Your task to perform on an android device: set default search engine in the chrome app Image 0: 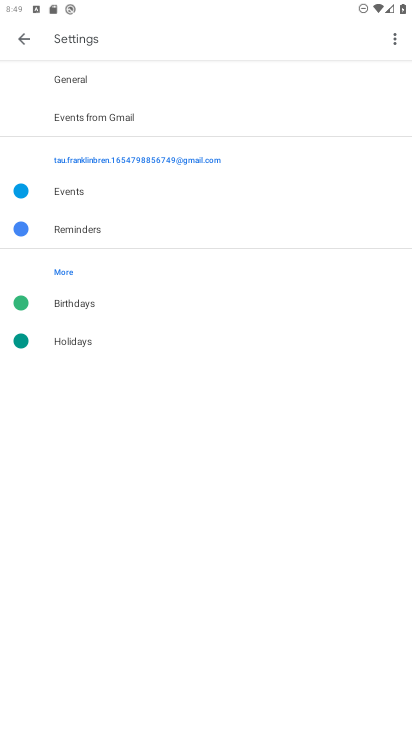
Step 0: press home button
Your task to perform on an android device: set default search engine in the chrome app Image 1: 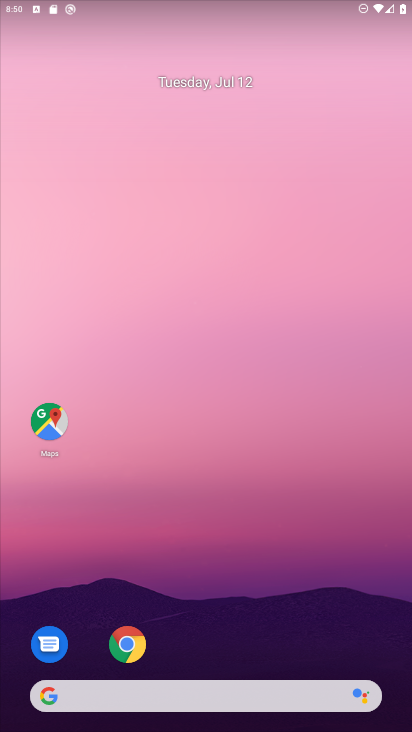
Step 1: click (128, 642)
Your task to perform on an android device: set default search engine in the chrome app Image 2: 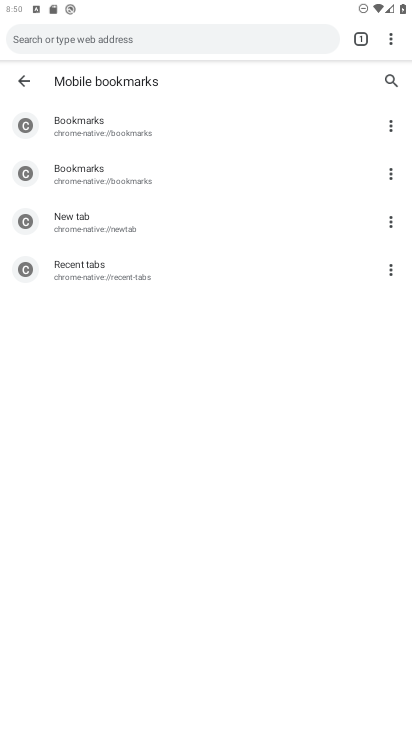
Step 2: press back button
Your task to perform on an android device: set default search engine in the chrome app Image 3: 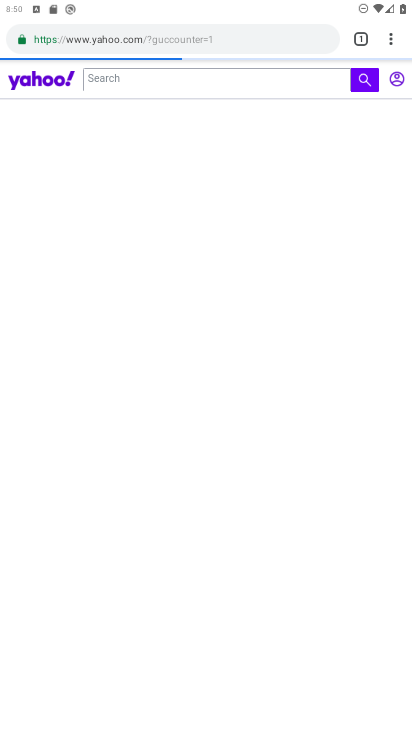
Step 3: click (393, 40)
Your task to perform on an android device: set default search engine in the chrome app Image 4: 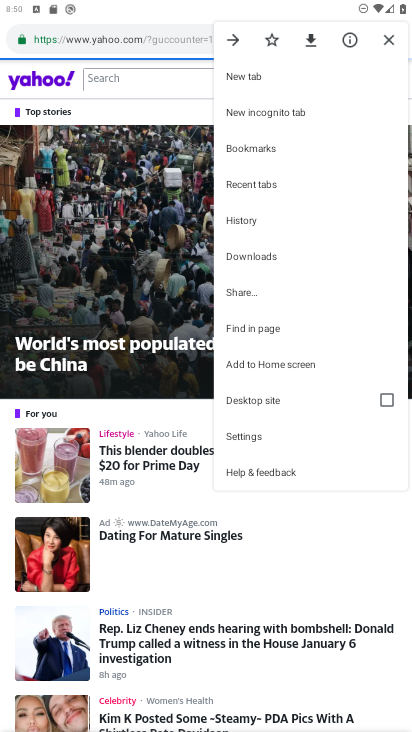
Step 4: click (250, 437)
Your task to perform on an android device: set default search engine in the chrome app Image 5: 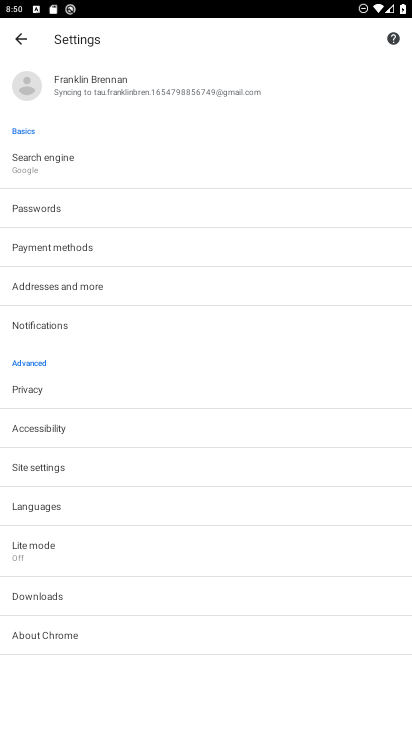
Step 5: click (34, 151)
Your task to perform on an android device: set default search engine in the chrome app Image 6: 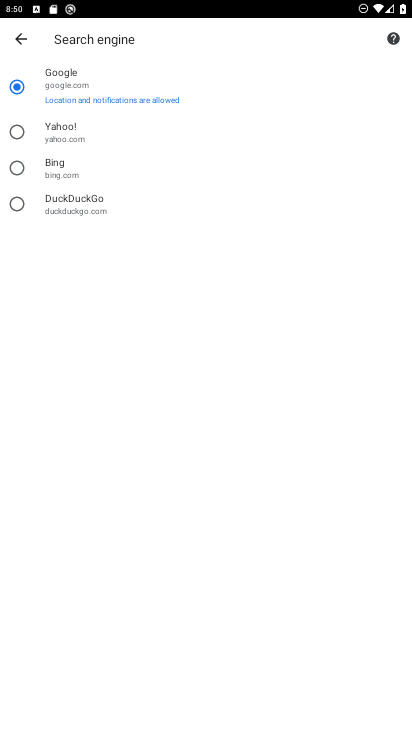
Step 6: click (16, 131)
Your task to perform on an android device: set default search engine in the chrome app Image 7: 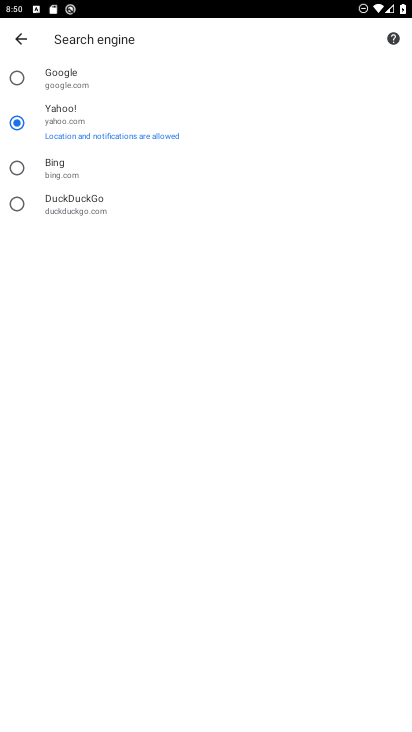
Step 7: task complete